Your task to perform on an android device: change timer sound Image 0: 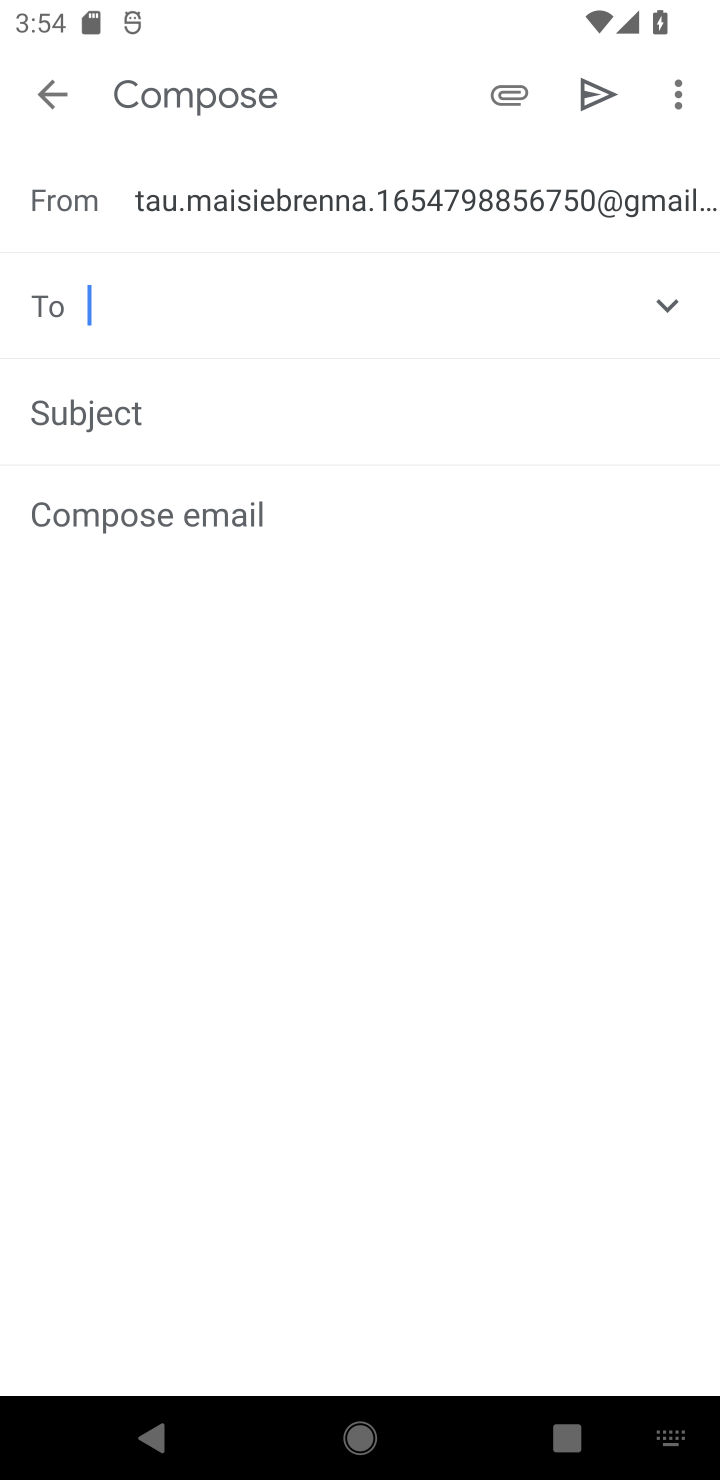
Step 0: press back button
Your task to perform on an android device: change timer sound Image 1: 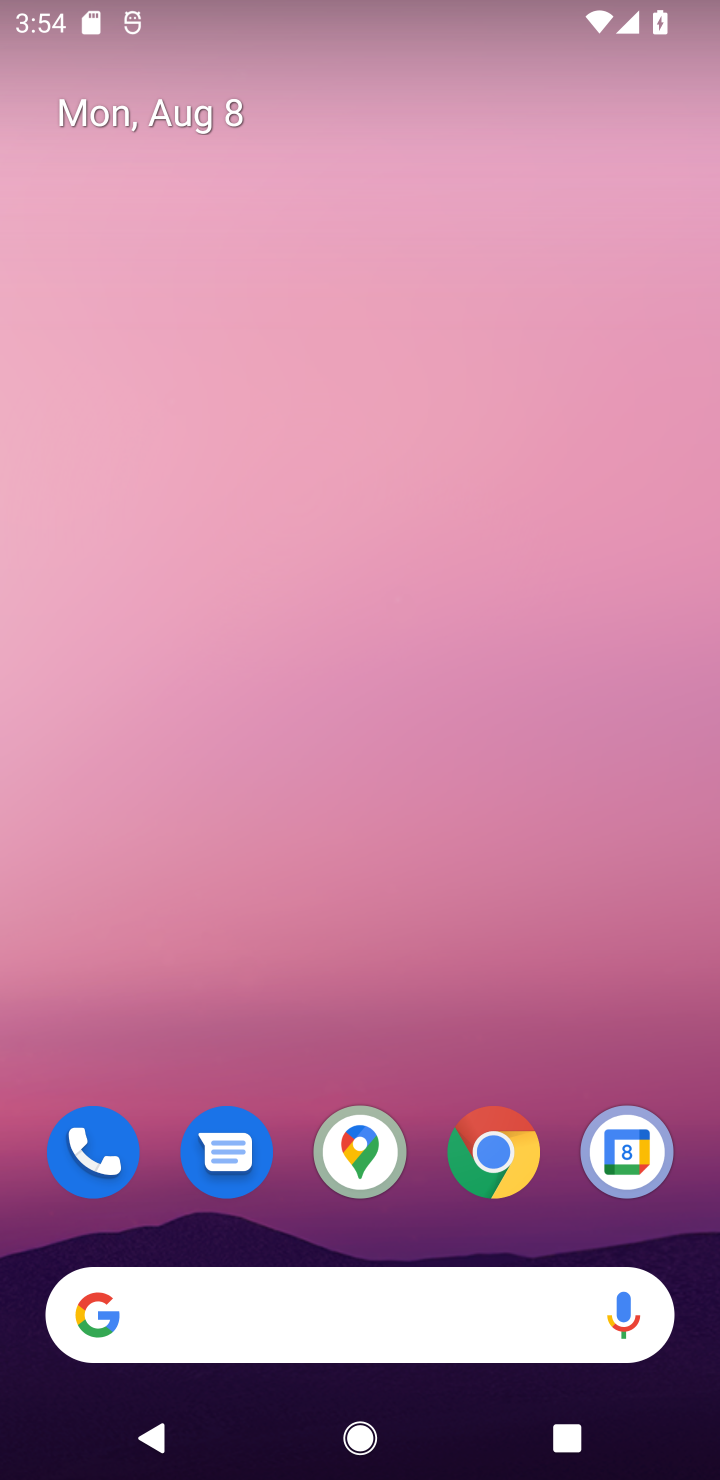
Step 1: drag from (401, 1076) to (531, 129)
Your task to perform on an android device: change timer sound Image 2: 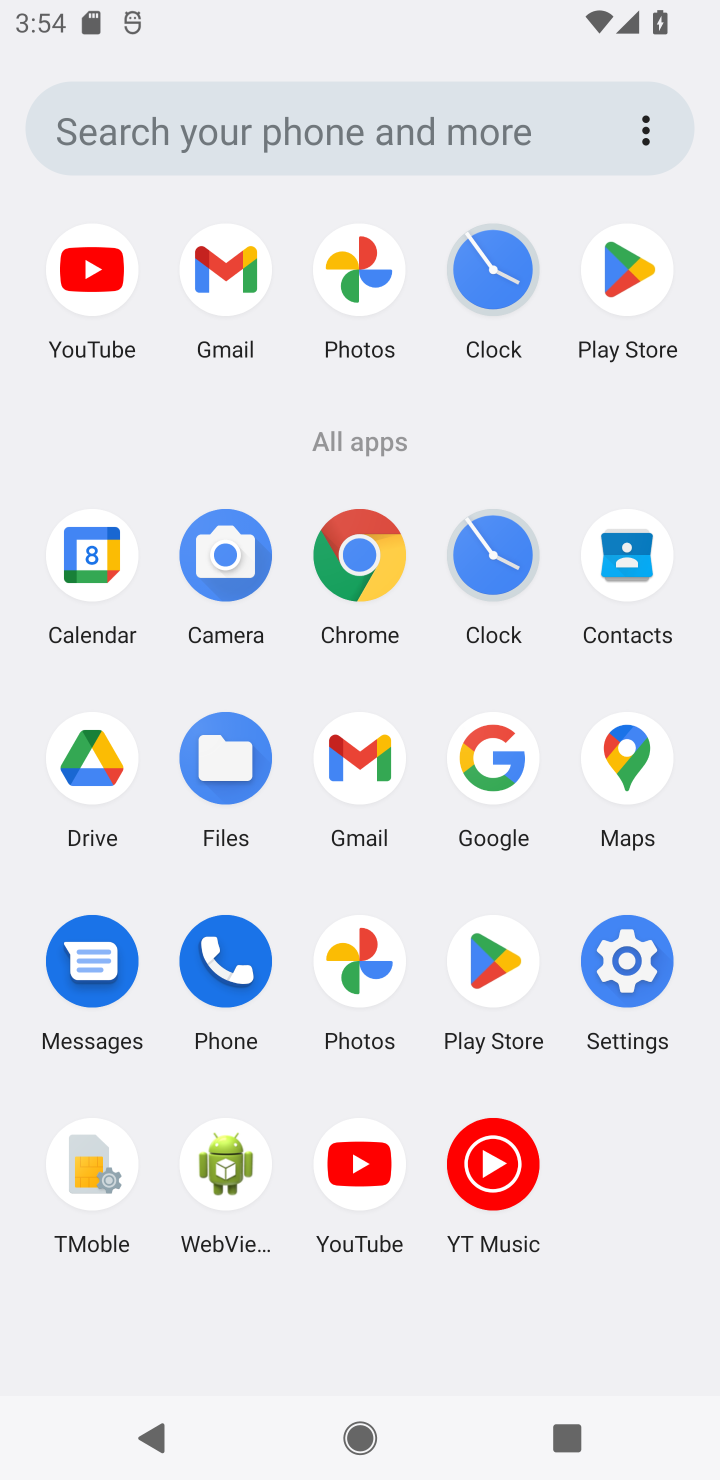
Step 2: click (632, 967)
Your task to perform on an android device: change timer sound Image 3: 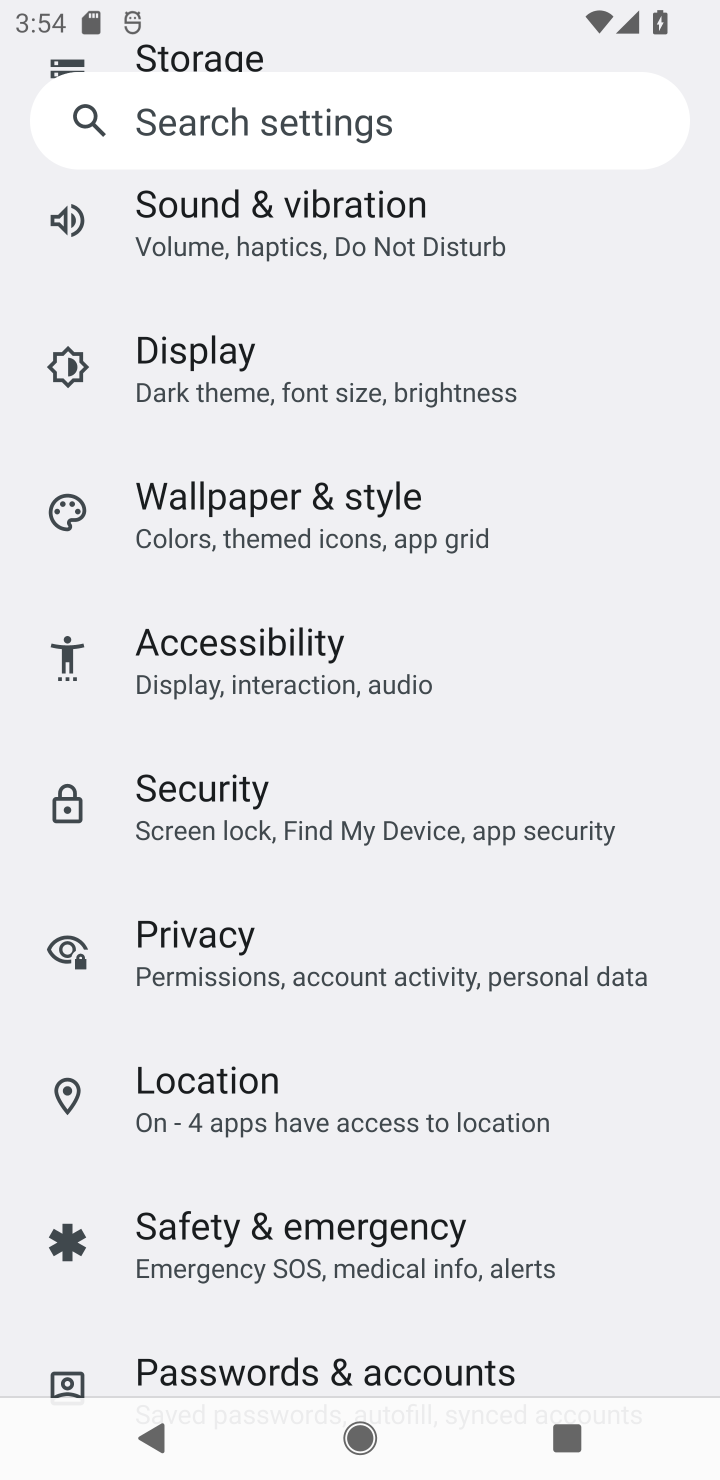
Step 3: drag from (231, 1335) to (378, 17)
Your task to perform on an android device: change timer sound Image 4: 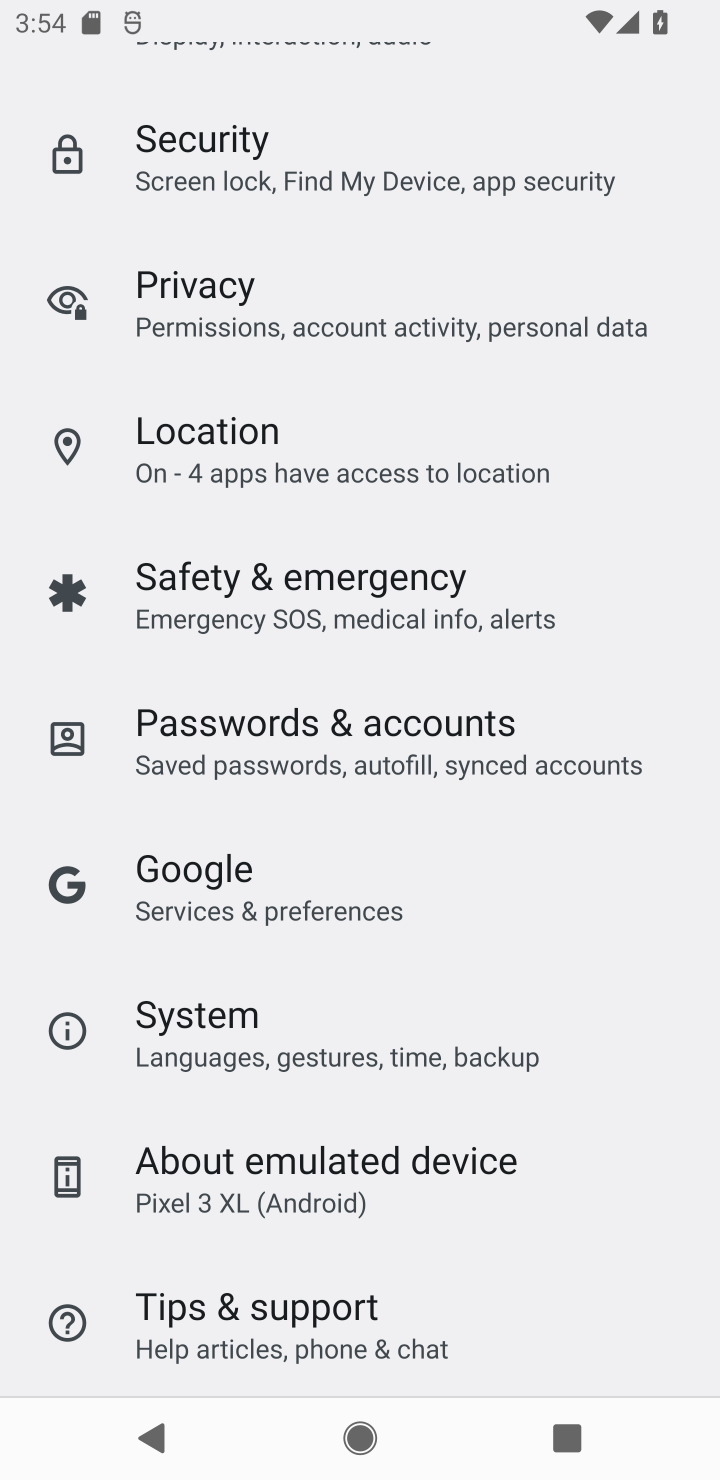
Step 4: press back button
Your task to perform on an android device: change timer sound Image 5: 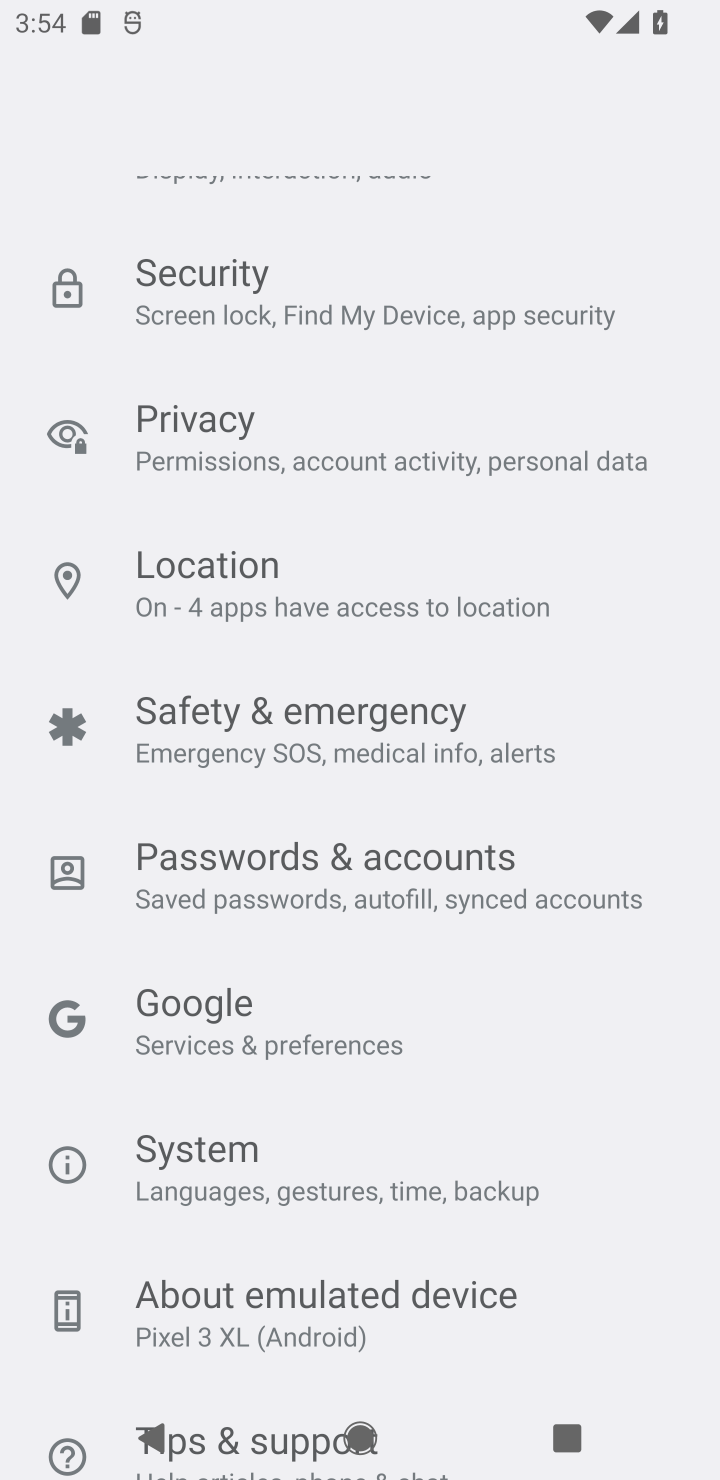
Step 5: press back button
Your task to perform on an android device: change timer sound Image 6: 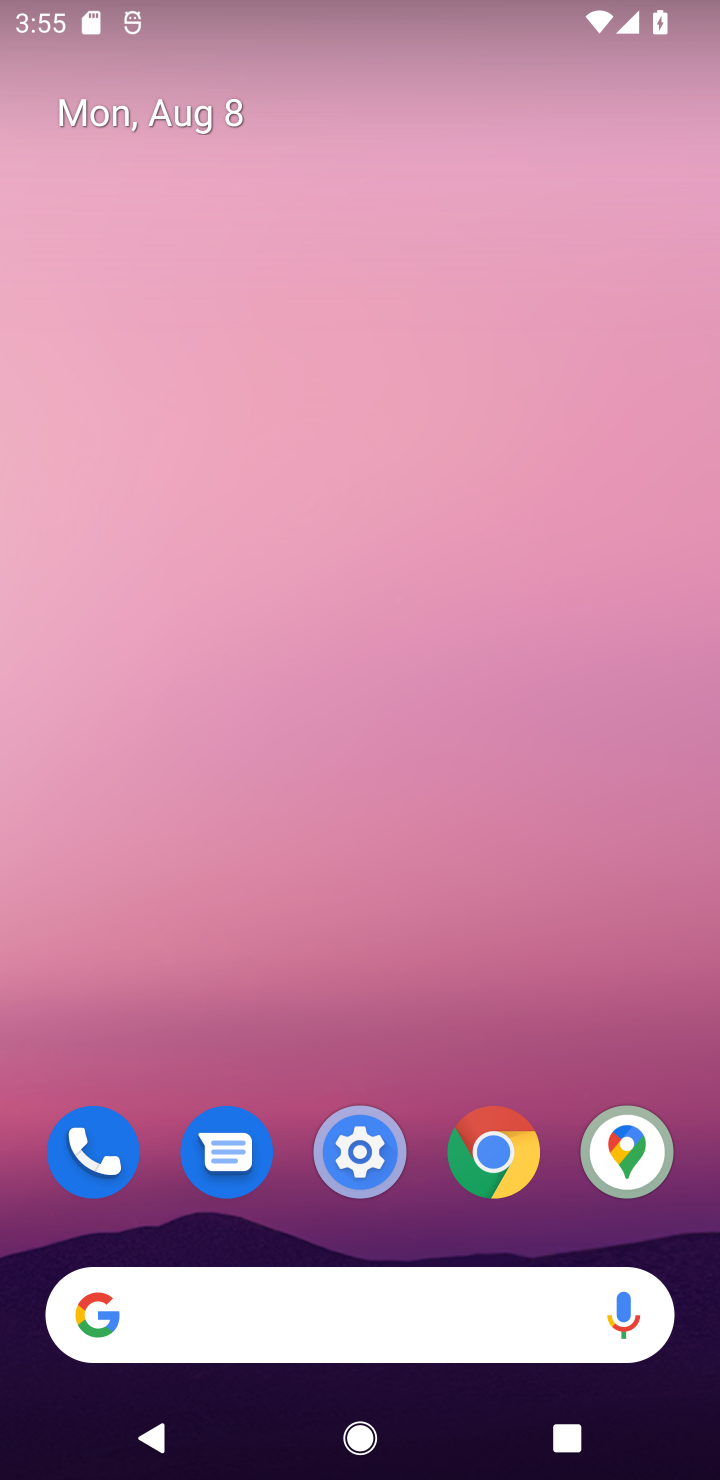
Step 6: drag from (444, 1081) to (489, 0)
Your task to perform on an android device: change timer sound Image 7: 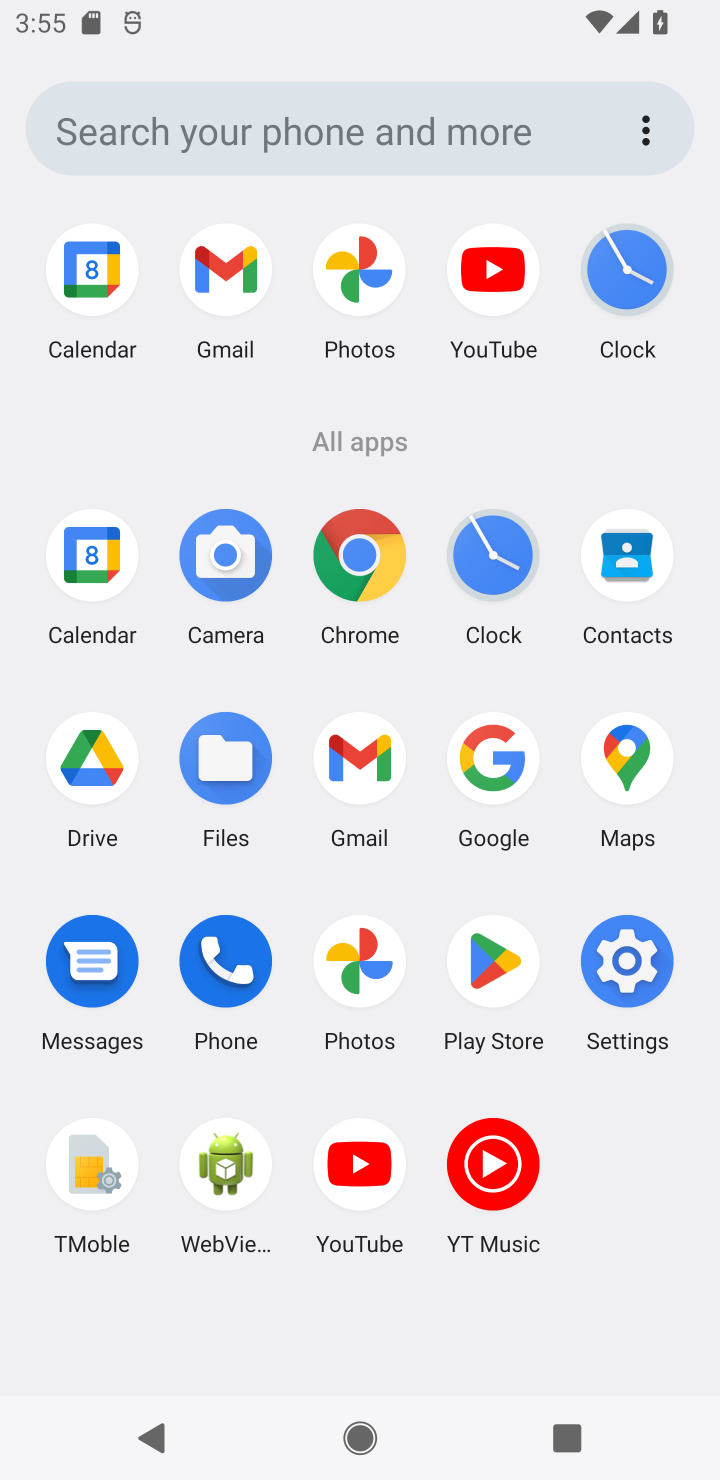
Step 7: click (495, 568)
Your task to perform on an android device: change timer sound Image 8: 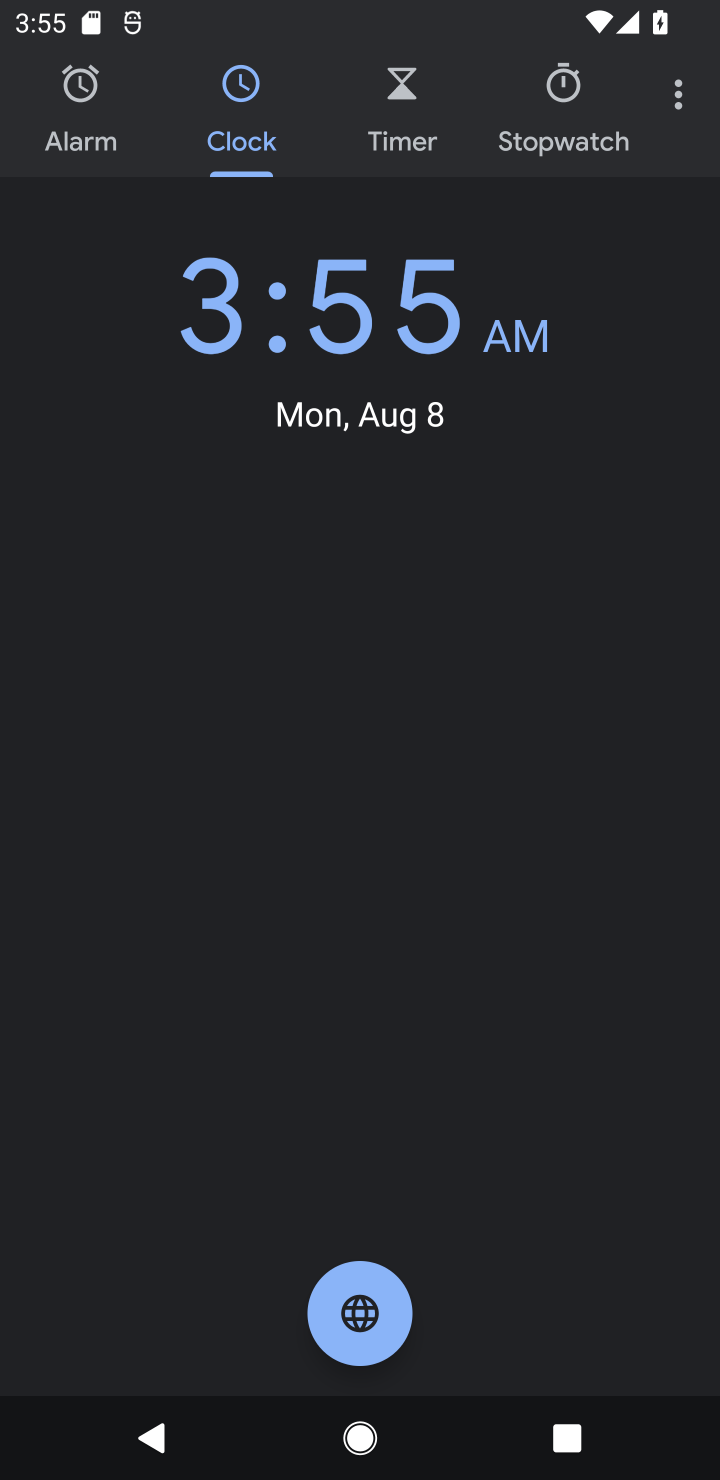
Step 8: click (678, 84)
Your task to perform on an android device: change timer sound Image 9: 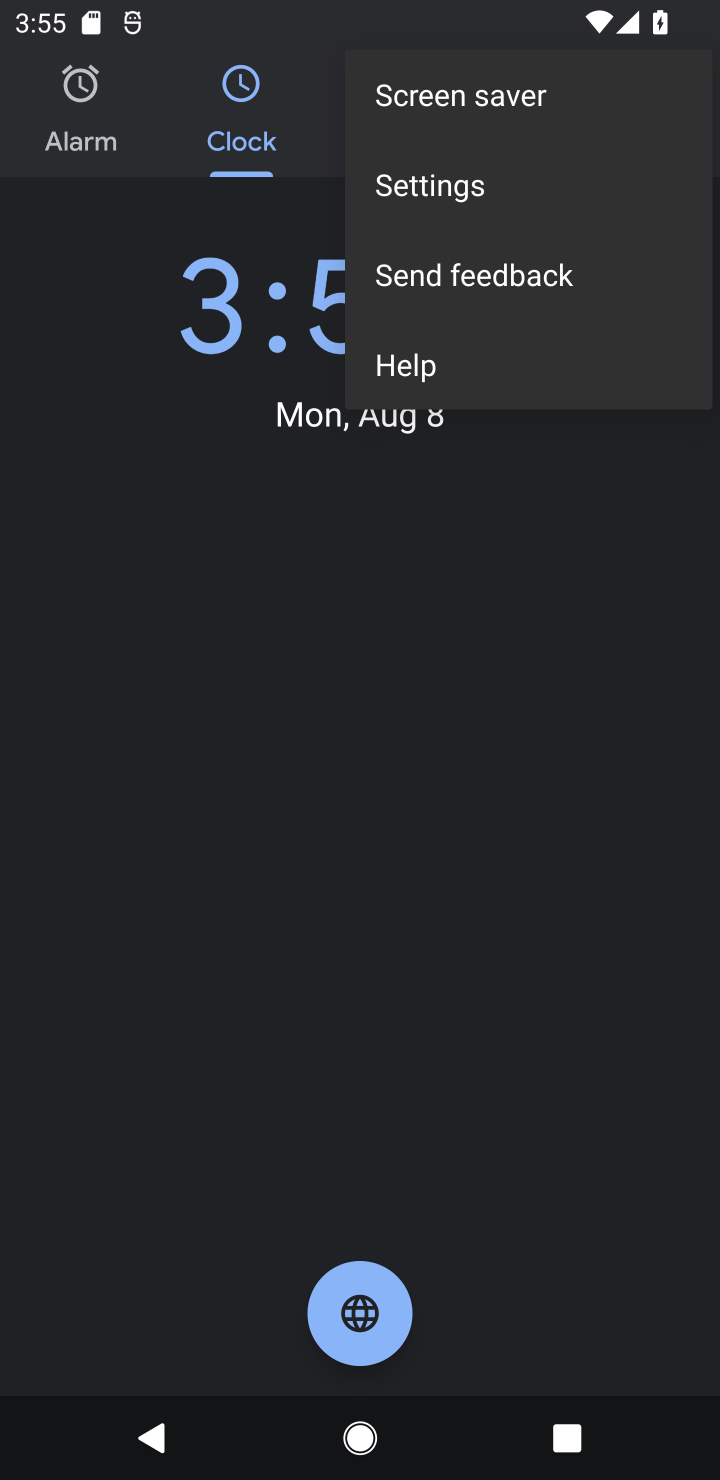
Step 9: click (440, 189)
Your task to perform on an android device: change timer sound Image 10: 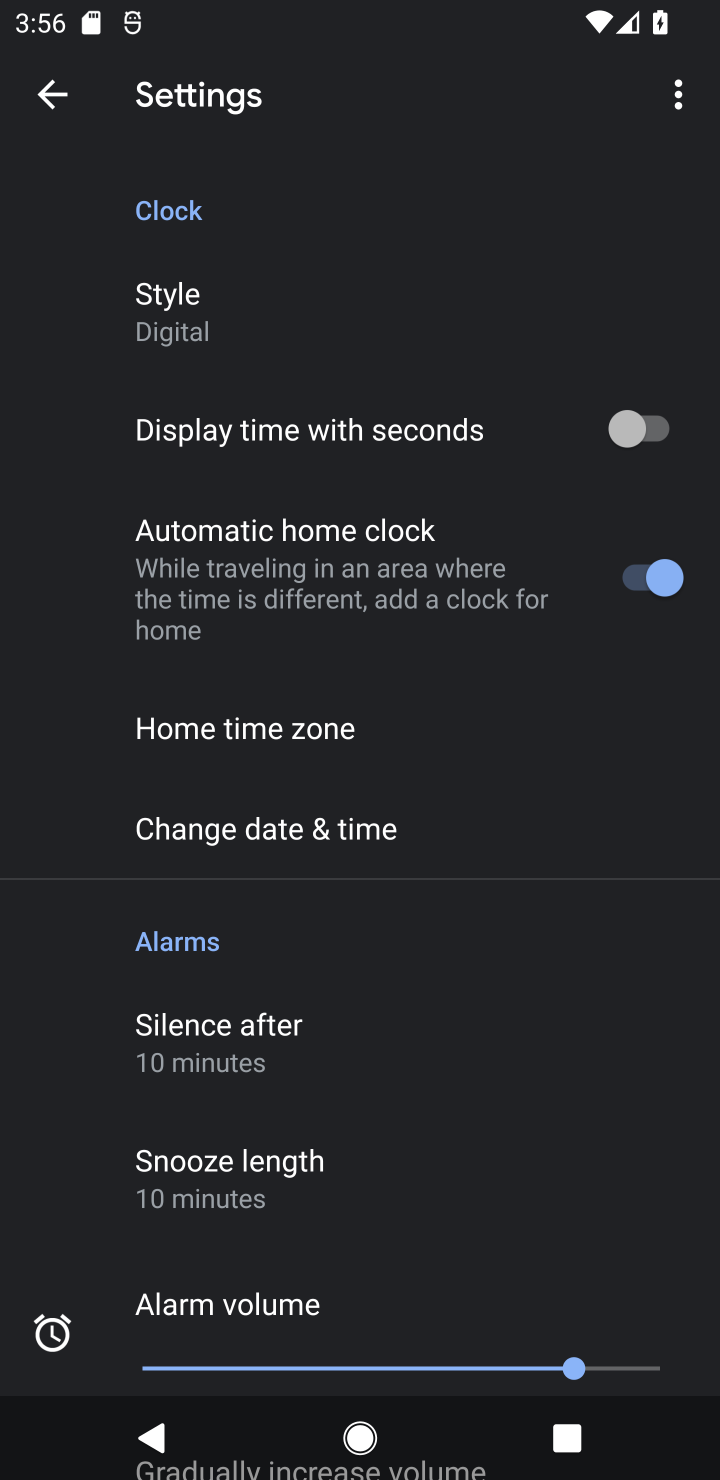
Step 10: drag from (279, 1182) to (461, 197)
Your task to perform on an android device: change timer sound Image 11: 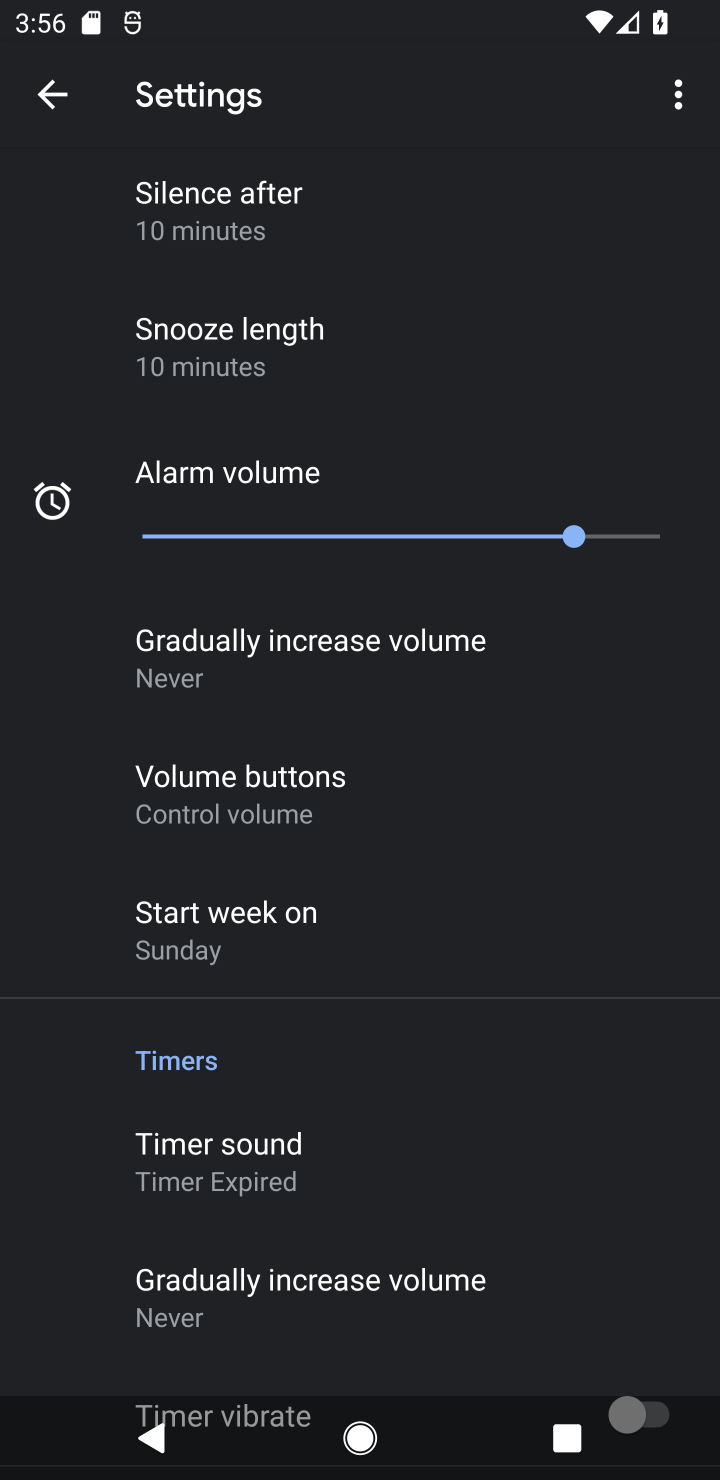
Step 11: click (198, 1153)
Your task to perform on an android device: change timer sound Image 12: 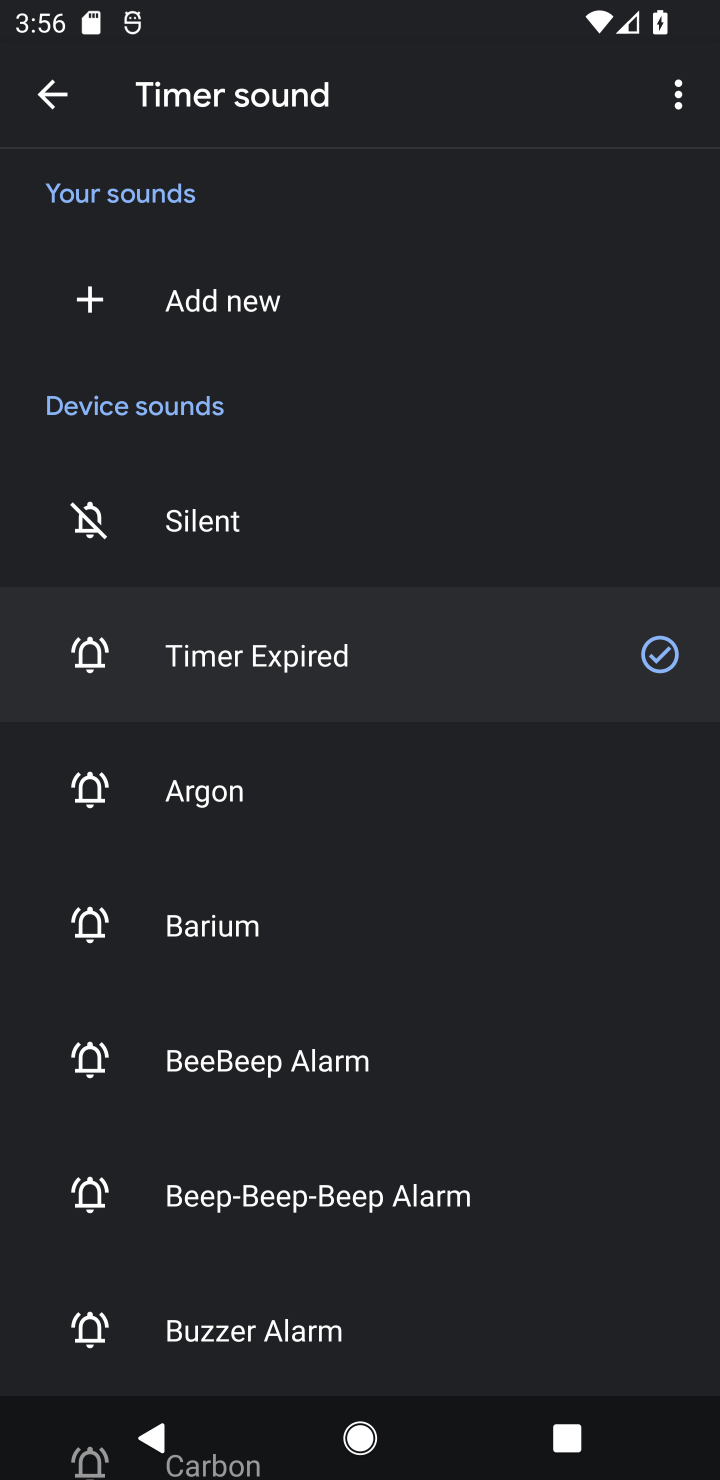
Step 12: click (209, 798)
Your task to perform on an android device: change timer sound Image 13: 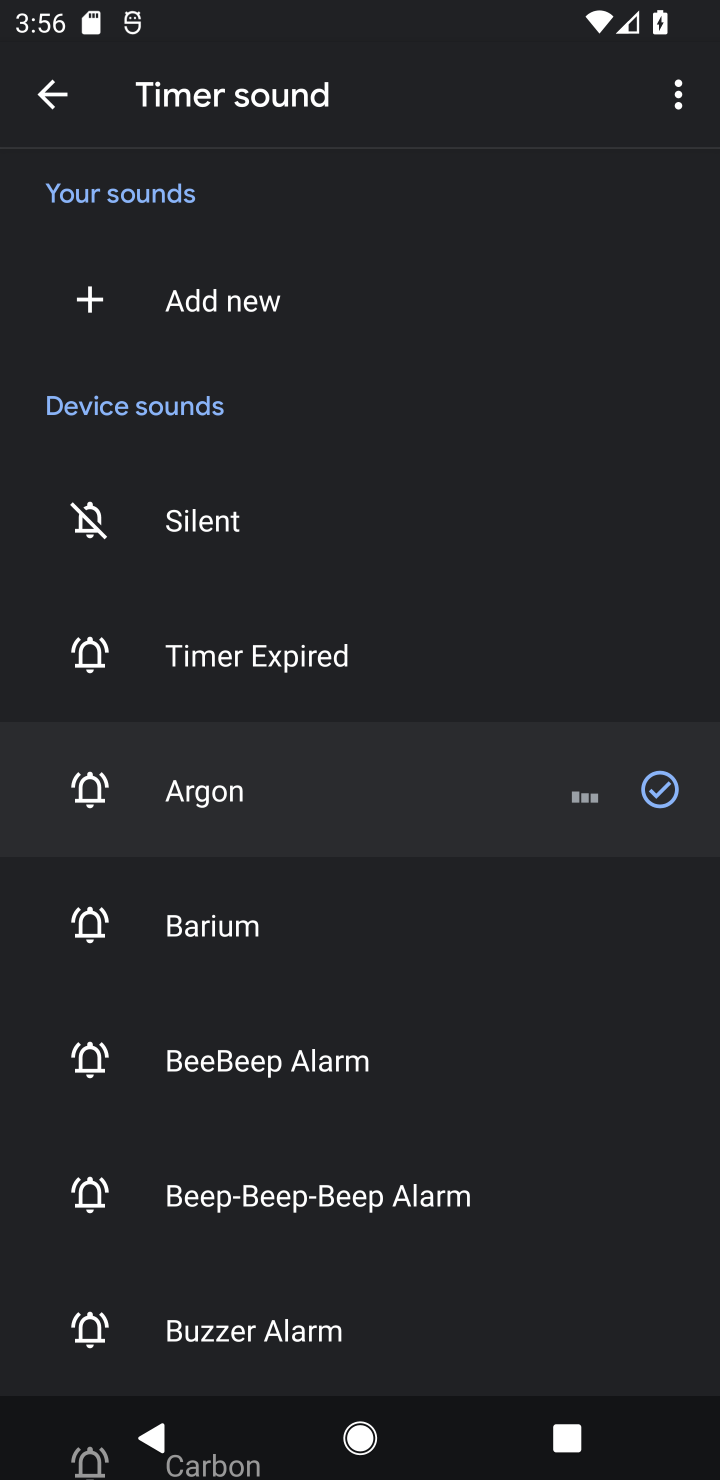
Step 13: task complete